Your task to perform on an android device: remove spam from my inbox in the gmail app Image 0: 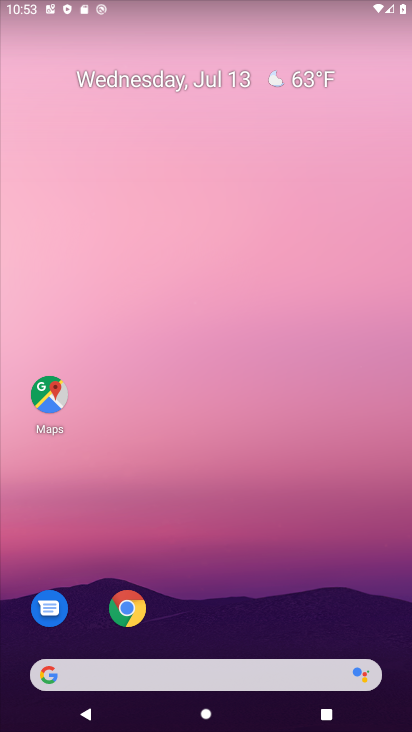
Step 0: press home button
Your task to perform on an android device: remove spam from my inbox in the gmail app Image 1: 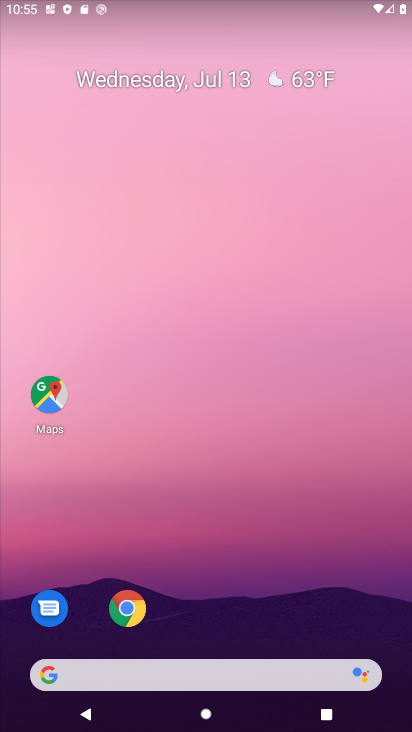
Step 1: drag from (266, 373) to (290, 153)
Your task to perform on an android device: remove spam from my inbox in the gmail app Image 2: 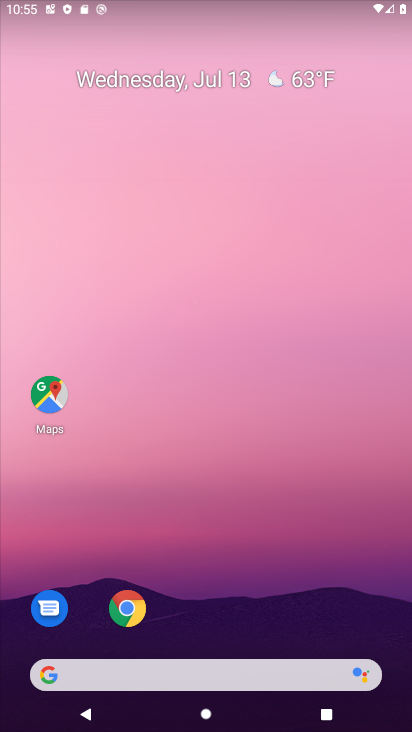
Step 2: drag from (272, 530) to (270, 11)
Your task to perform on an android device: remove spam from my inbox in the gmail app Image 3: 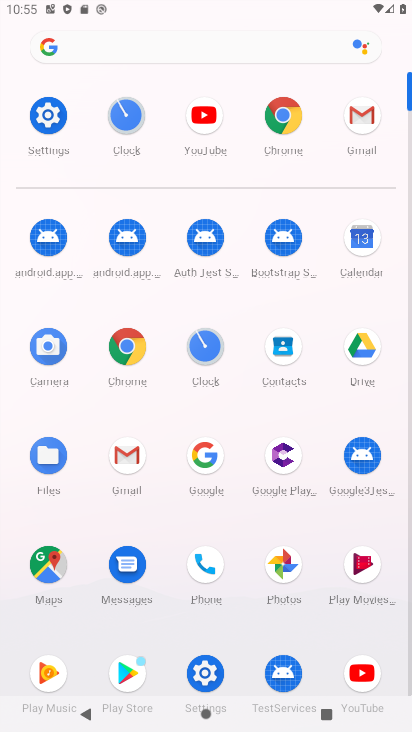
Step 3: click (368, 114)
Your task to perform on an android device: remove spam from my inbox in the gmail app Image 4: 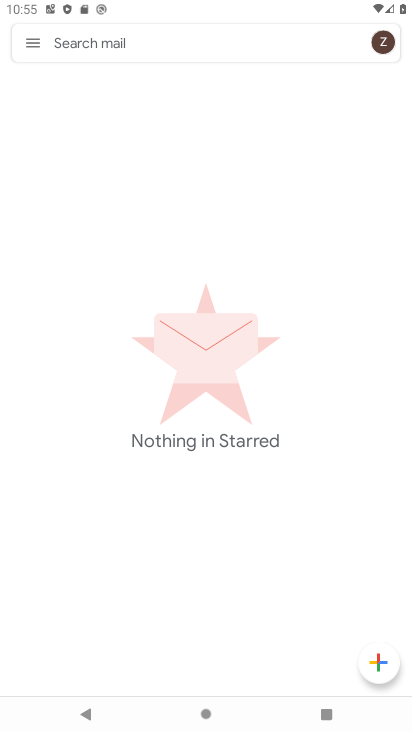
Step 4: click (30, 39)
Your task to perform on an android device: remove spam from my inbox in the gmail app Image 5: 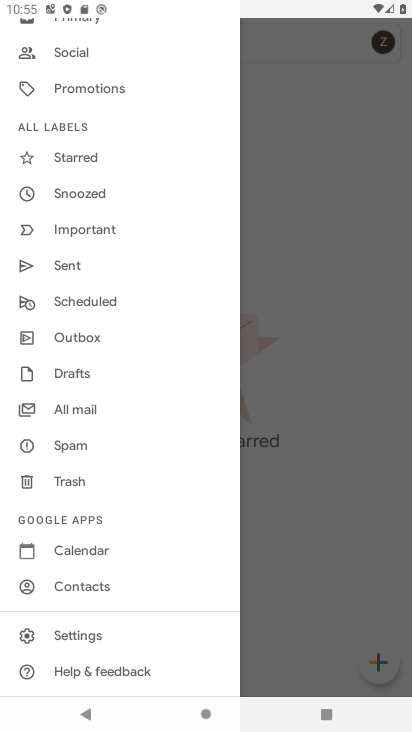
Step 5: task complete